Your task to perform on an android device: Open wifi settings Image 0: 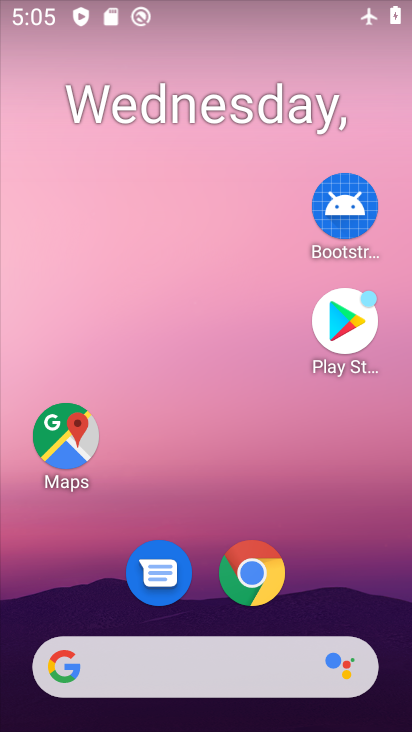
Step 0: drag from (308, 569) to (289, 7)
Your task to perform on an android device: Open wifi settings Image 1: 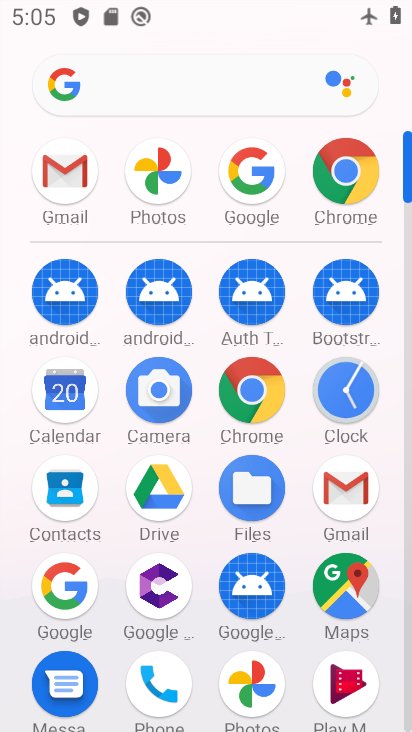
Step 1: click (406, 617)
Your task to perform on an android device: Open wifi settings Image 2: 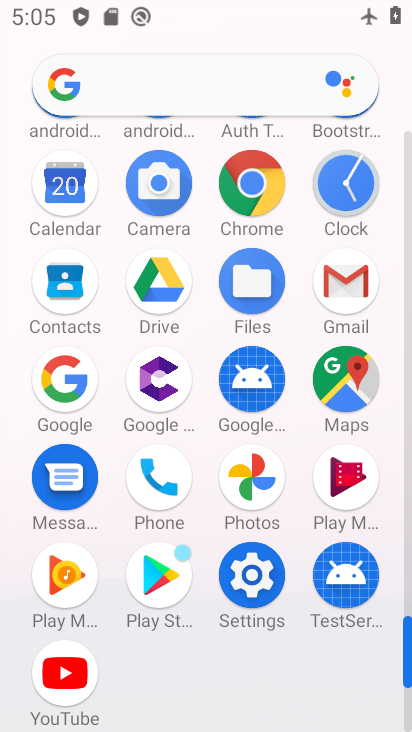
Step 2: click (230, 598)
Your task to perform on an android device: Open wifi settings Image 3: 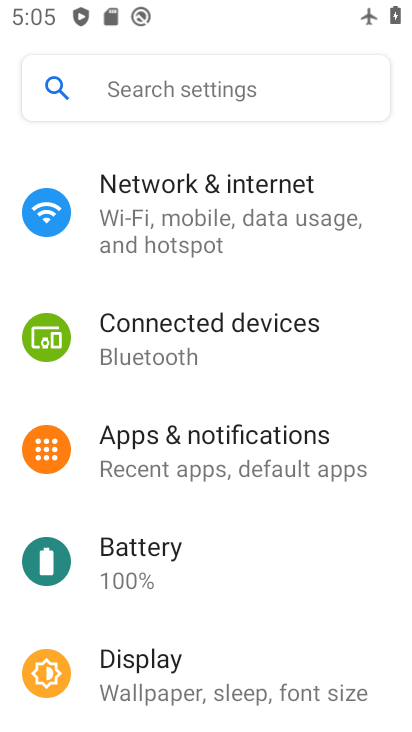
Step 3: task complete